Your task to perform on an android device: Go to battery settings Image 0: 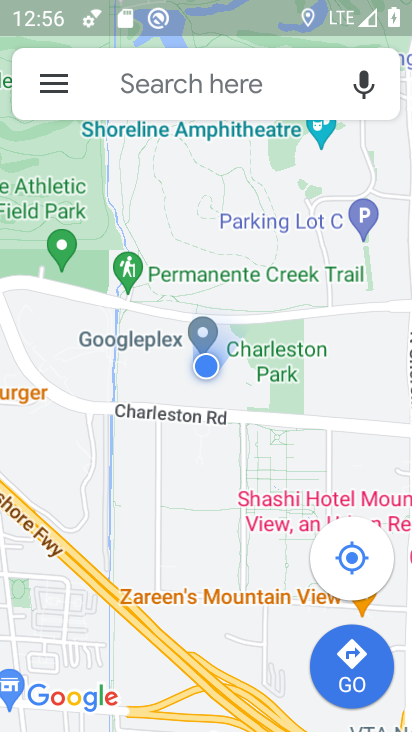
Step 0: press home button
Your task to perform on an android device: Go to battery settings Image 1: 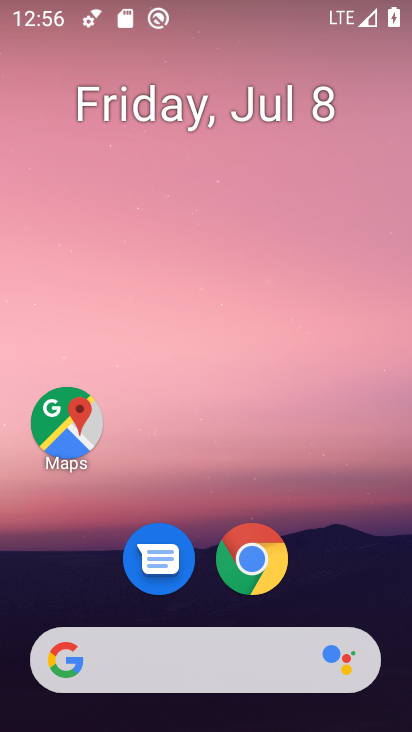
Step 1: drag from (148, 637) to (162, 22)
Your task to perform on an android device: Go to battery settings Image 2: 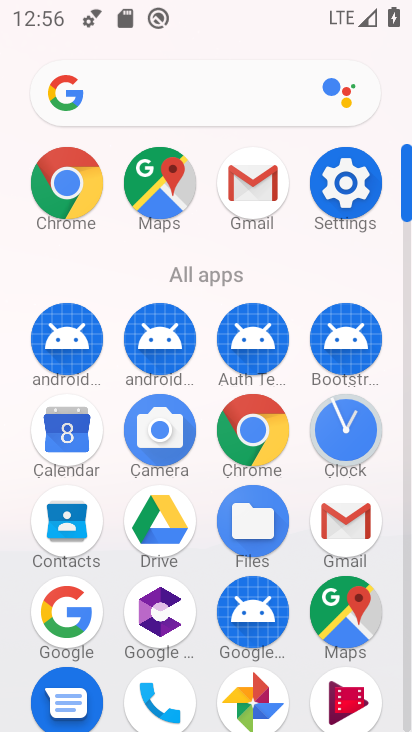
Step 2: click (359, 177)
Your task to perform on an android device: Go to battery settings Image 3: 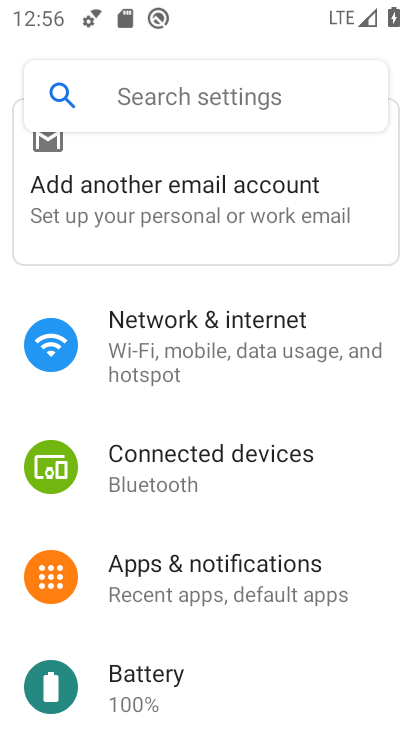
Step 3: drag from (197, 614) to (140, 250)
Your task to perform on an android device: Go to battery settings Image 4: 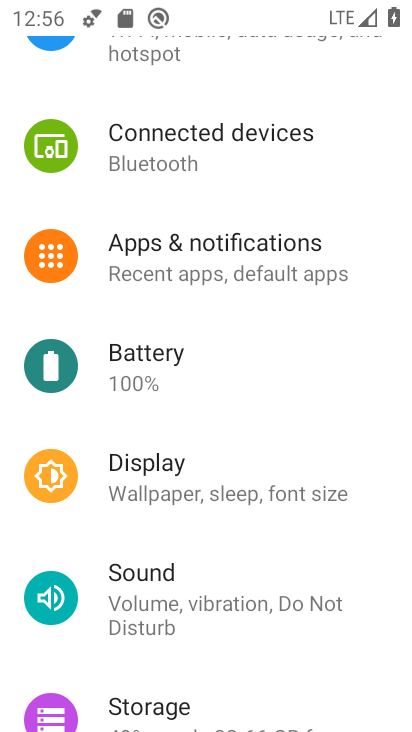
Step 4: click (148, 387)
Your task to perform on an android device: Go to battery settings Image 5: 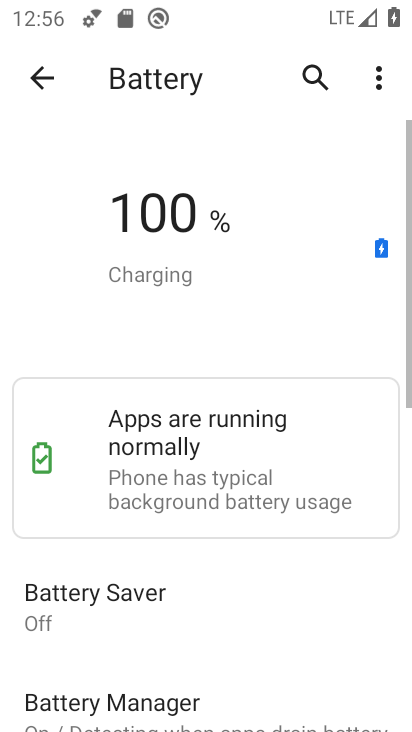
Step 5: task complete